Your task to perform on an android device: Find coffee shops on Maps Image 0: 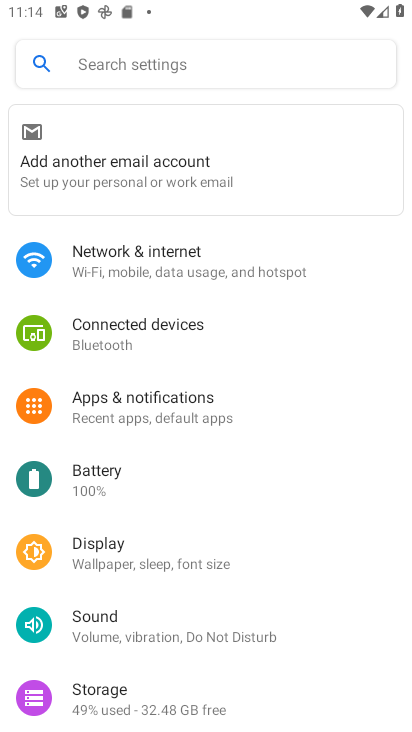
Step 0: press home button
Your task to perform on an android device: Find coffee shops on Maps Image 1: 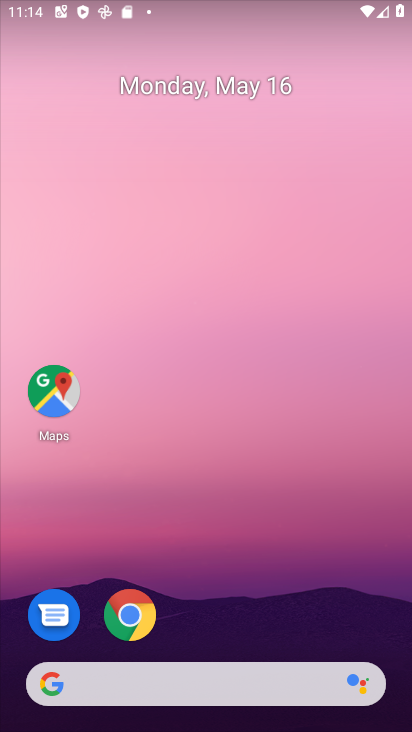
Step 1: drag from (214, 724) to (214, 193)
Your task to perform on an android device: Find coffee shops on Maps Image 2: 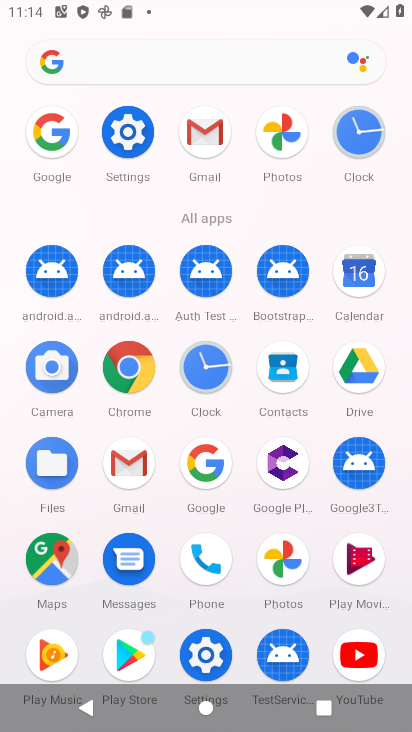
Step 2: click (63, 555)
Your task to perform on an android device: Find coffee shops on Maps Image 3: 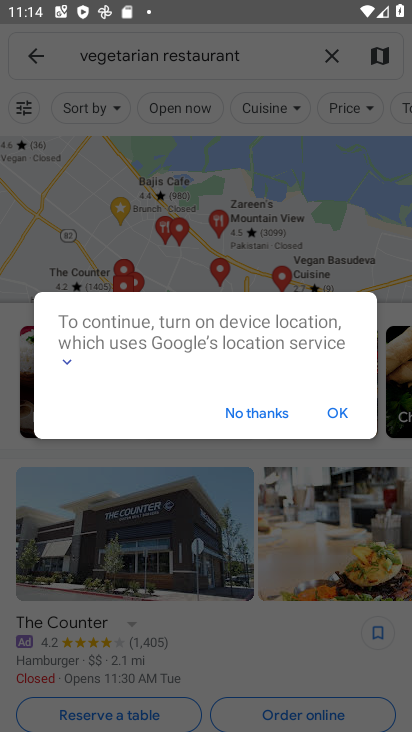
Step 3: click (256, 408)
Your task to perform on an android device: Find coffee shops on Maps Image 4: 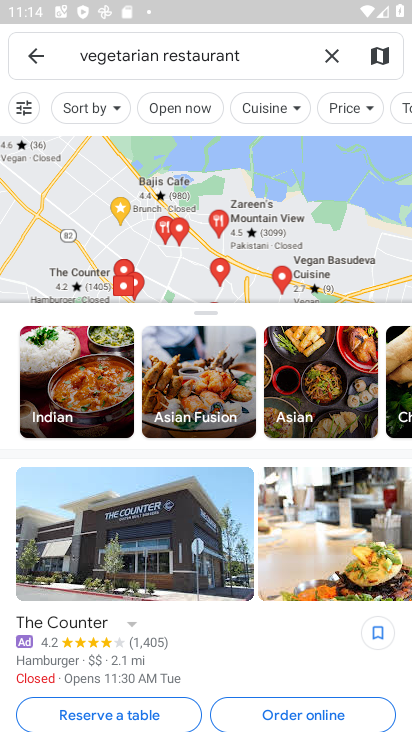
Step 4: click (324, 51)
Your task to perform on an android device: Find coffee shops on Maps Image 5: 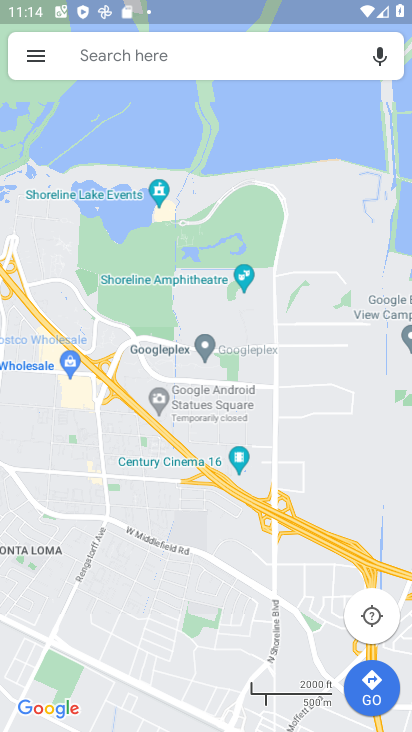
Step 5: click (176, 53)
Your task to perform on an android device: Find coffee shops on Maps Image 6: 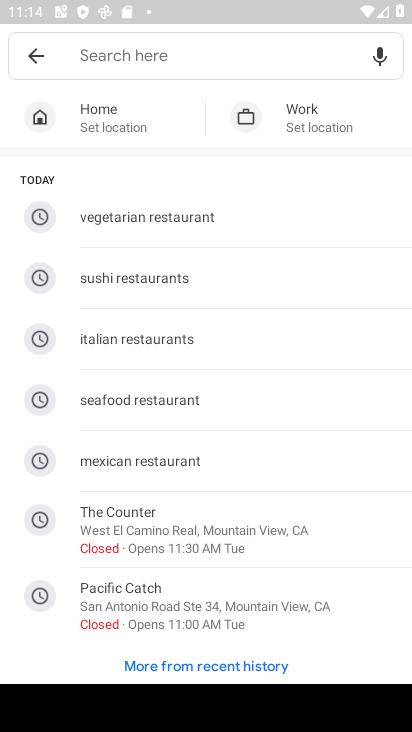
Step 6: type "coffee shops"
Your task to perform on an android device: Find coffee shops on Maps Image 7: 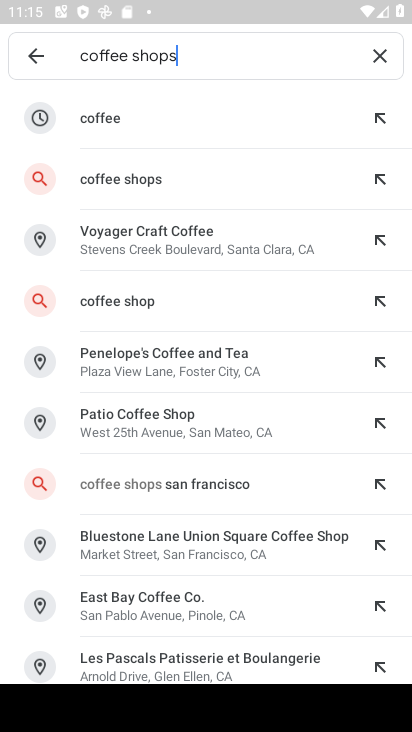
Step 7: click (126, 174)
Your task to perform on an android device: Find coffee shops on Maps Image 8: 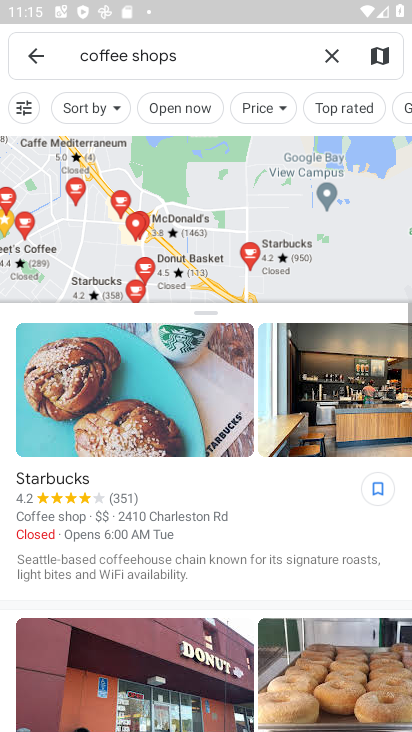
Step 8: task complete